Your task to perform on an android device: Search for a new skincare product Image 0: 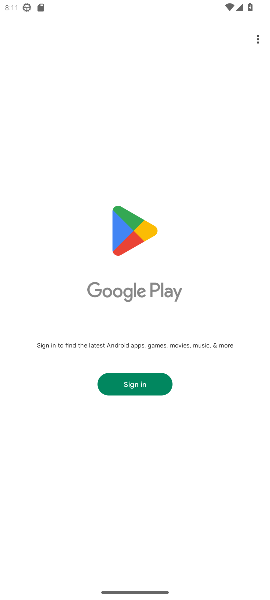
Step 0: press home button
Your task to perform on an android device: Search for a new skincare product Image 1: 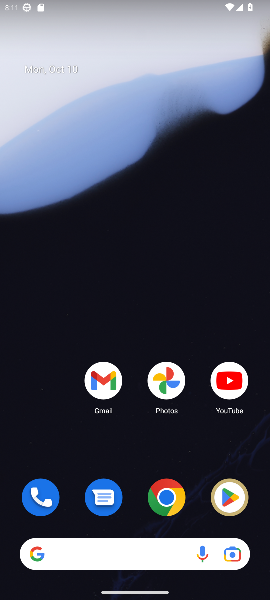
Step 1: drag from (146, 468) to (146, 139)
Your task to perform on an android device: Search for a new skincare product Image 2: 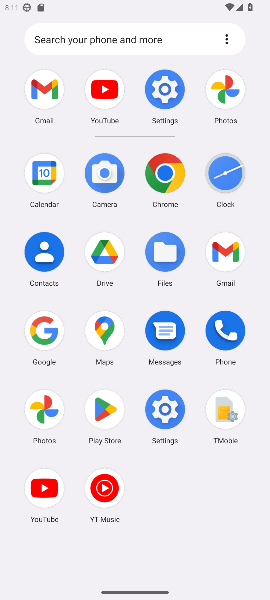
Step 2: click (39, 88)
Your task to perform on an android device: Search for a new skincare product Image 3: 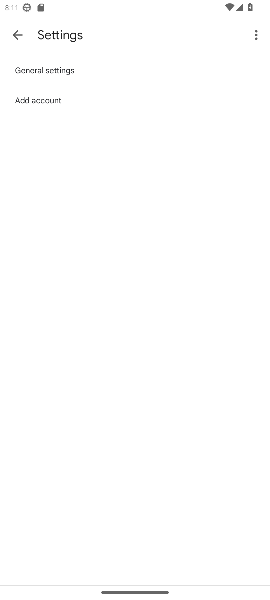
Step 3: press home button
Your task to perform on an android device: Search for a new skincare product Image 4: 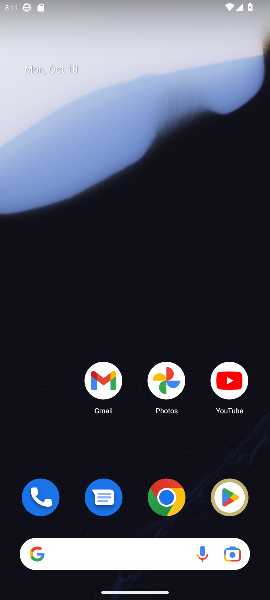
Step 4: click (130, 460)
Your task to perform on an android device: Search for a new skincare product Image 5: 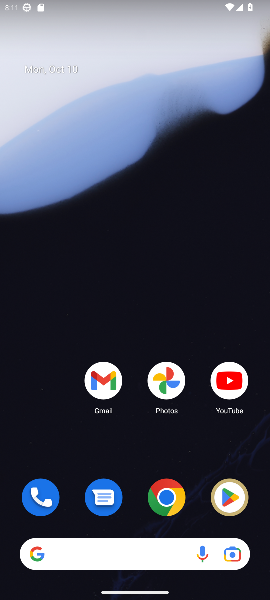
Step 5: click (132, 267)
Your task to perform on an android device: Search for a new skincare product Image 6: 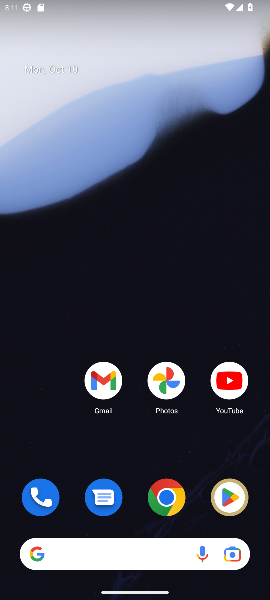
Step 6: drag from (101, 432) to (132, 170)
Your task to perform on an android device: Search for a new skincare product Image 7: 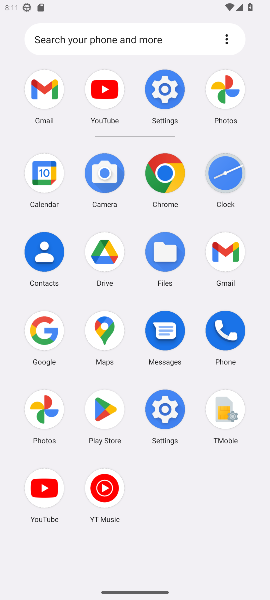
Step 7: click (42, 328)
Your task to perform on an android device: Search for a new skincare product Image 8: 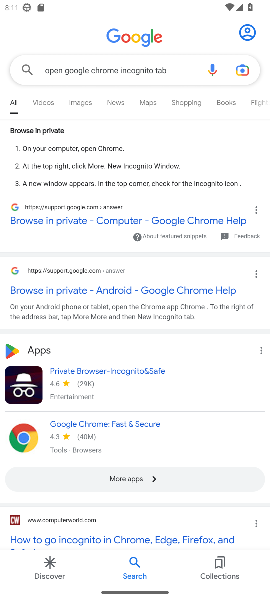
Step 8: click (128, 62)
Your task to perform on an android device: Search for a new skincare product Image 9: 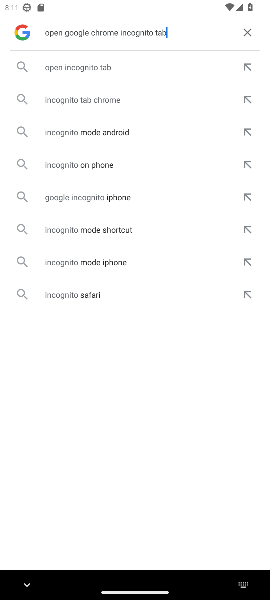
Step 9: click (250, 30)
Your task to perform on an android device: Search for a new skincare product Image 10: 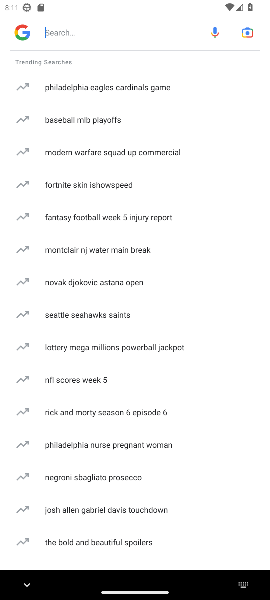
Step 10: click (91, 28)
Your task to perform on an android device: Search for a new skincare product Image 11: 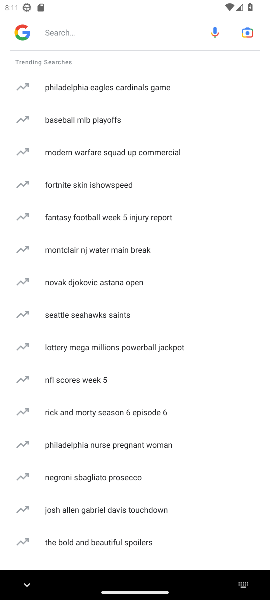
Step 11: type "Search for a new skincare product "
Your task to perform on an android device: Search for a new skincare product Image 12: 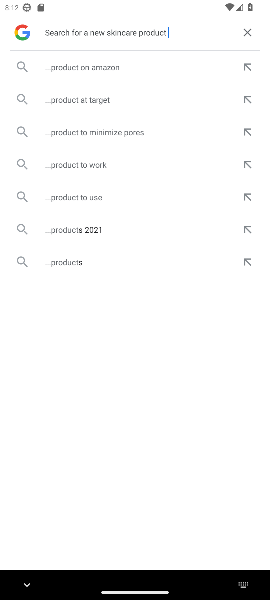
Step 12: click (85, 70)
Your task to perform on an android device: Search for a new skincare product Image 13: 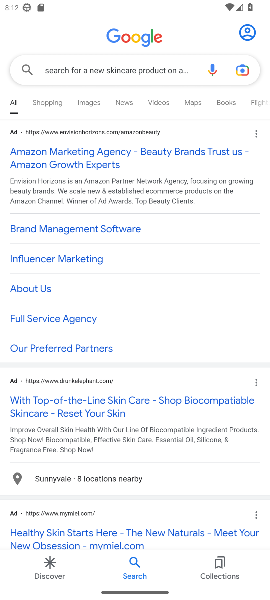
Step 13: click (81, 529)
Your task to perform on an android device: Search for a new skincare product Image 14: 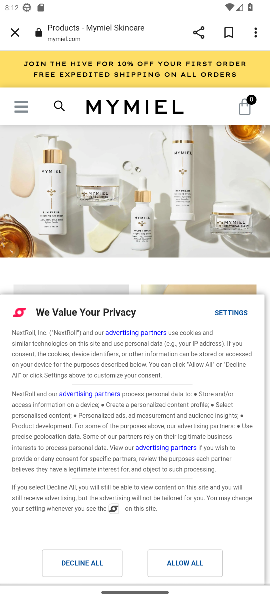
Step 14: task complete